Your task to perform on an android device: install app "Mercado Libre" Image 0: 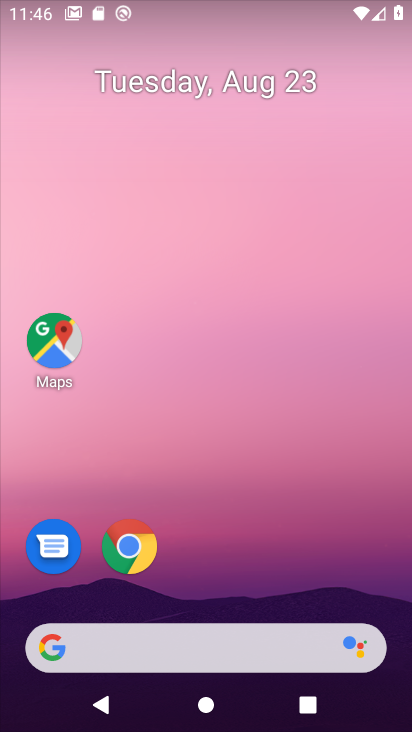
Step 0: drag from (242, 591) to (248, 151)
Your task to perform on an android device: install app "Mercado Libre" Image 1: 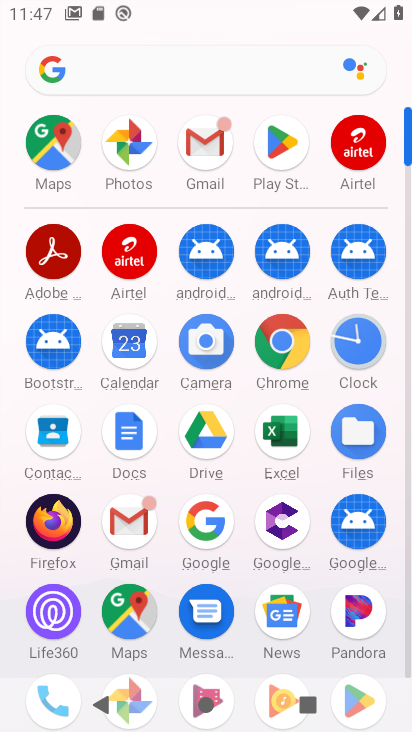
Step 1: click (285, 141)
Your task to perform on an android device: install app "Mercado Libre" Image 2: 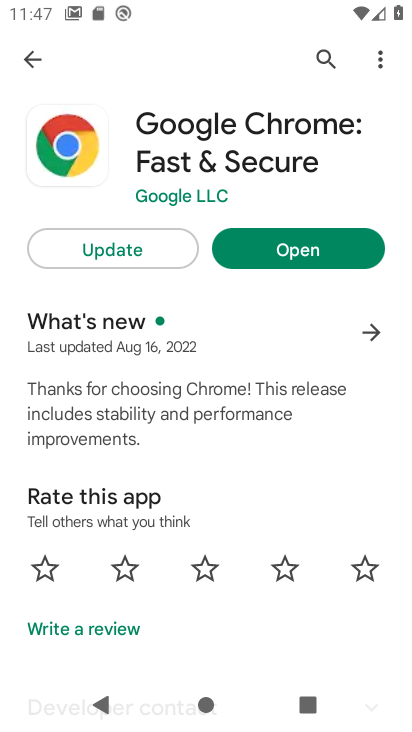
Step 2: click (14, 60)
Your task to perform on an android device: install app "Mercado Libre" Image 3: 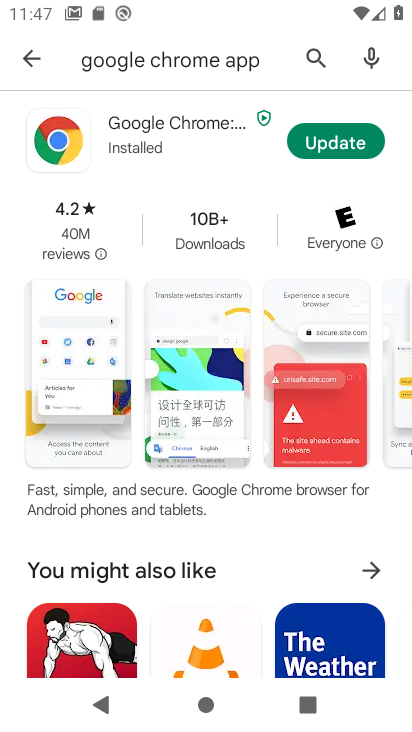
Step 3: click (22, 55)
Your task to perform on an android device: install app "Mercado Libre" Image 4: 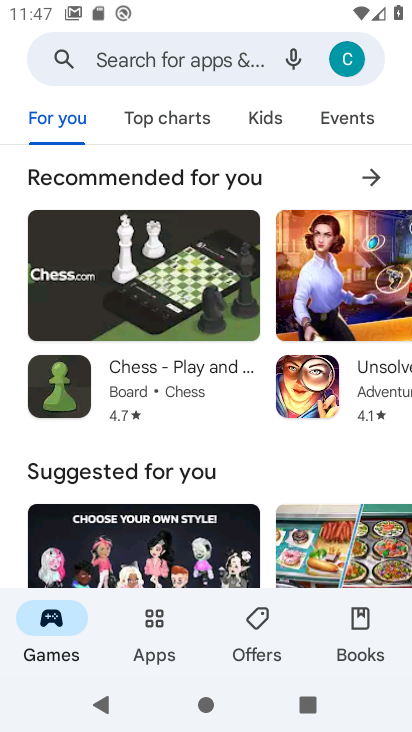
Step 4: click (162, 57)
Your task to perform on an android device: install app "Mercado Libre" Image 5: 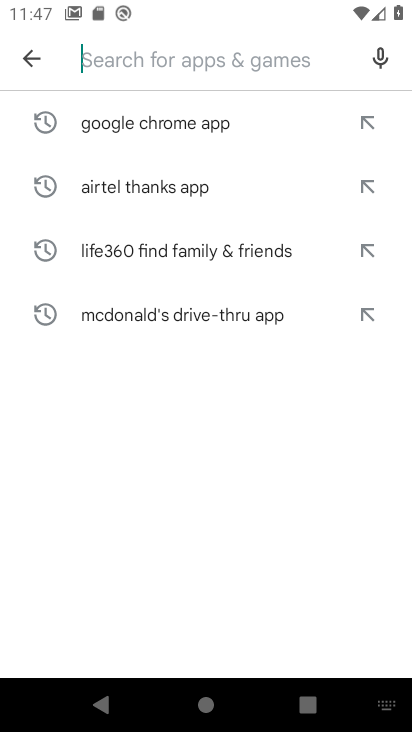
Step 5: type "Mercado Libre "
Your task to perform on an android device: install app "Mercado Libre" Image 6: 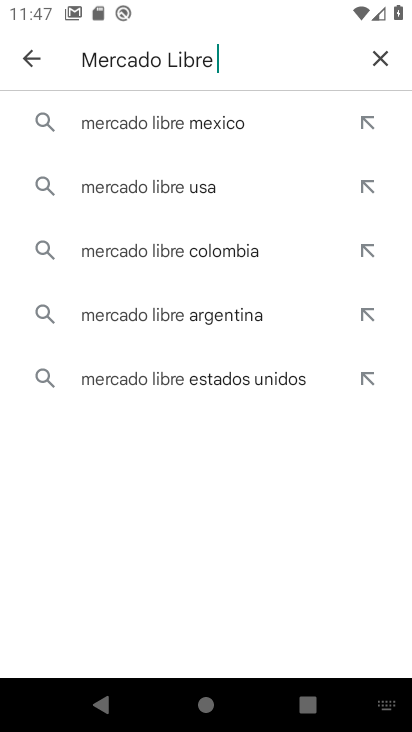
Step 6: click (164, 186)
Your task to perform on an android device: install app "Mercado Libre" Image 7: 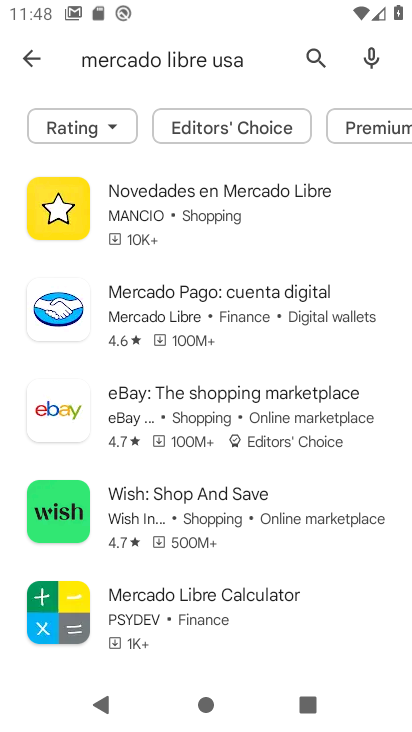
Step 7: task complete